Your task to perform on an android device: Check the weather Image 0: 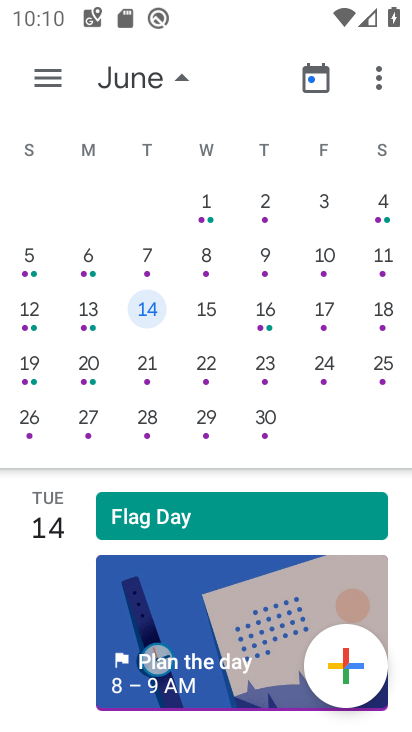
Step 0: press home button
Your task to perform on an android device: Check the weather Image 1: 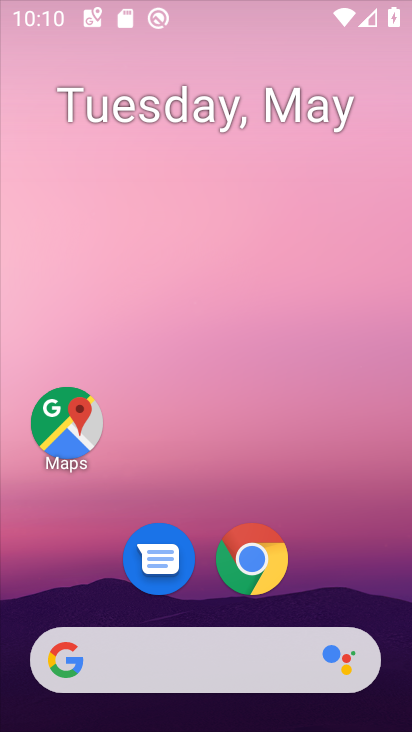
Step 1: drag from (406, 668) to (285, 92)
Your task to perform on an android device: Check the weather Image 2: 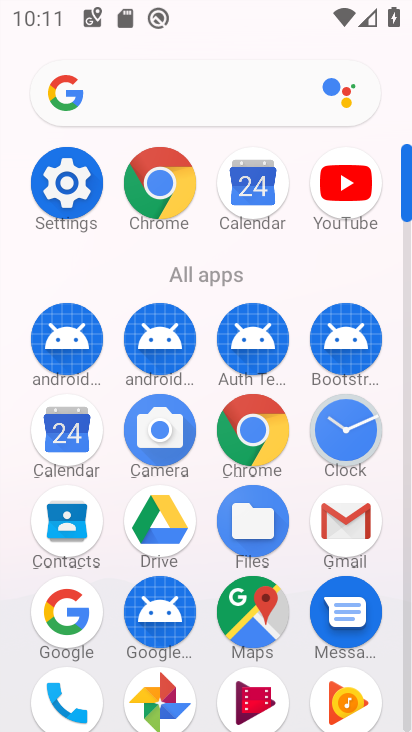
Step 2: click (70, 616)
Your task to perform on an android device: Check the weather Image 3: 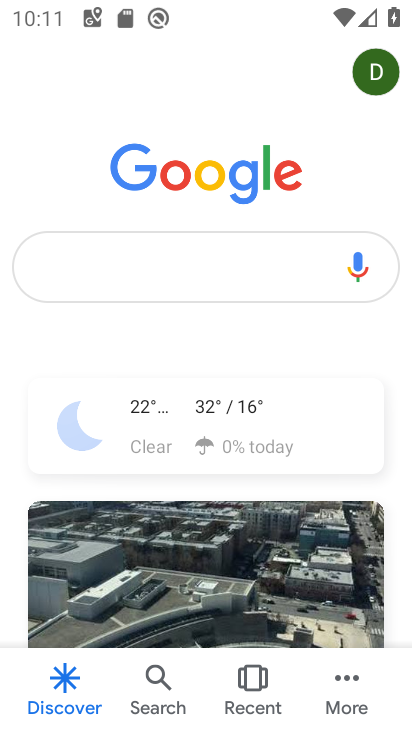
Step 3: click (140, 255)
Your task to perform on an android device: Check the weather Image 4: 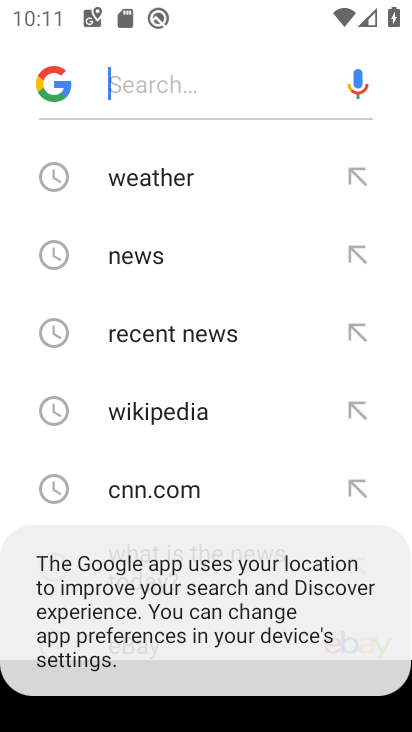
Step 4: click (165, 197)
Your task to perform on an android device: Check the weather Image 5: 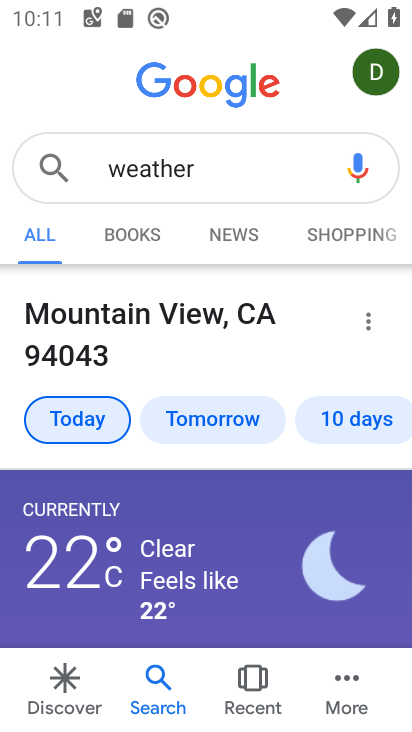
Step 5: task complete